Your task to perform on an android device: Go to calendar. Show me events next week Image 0: 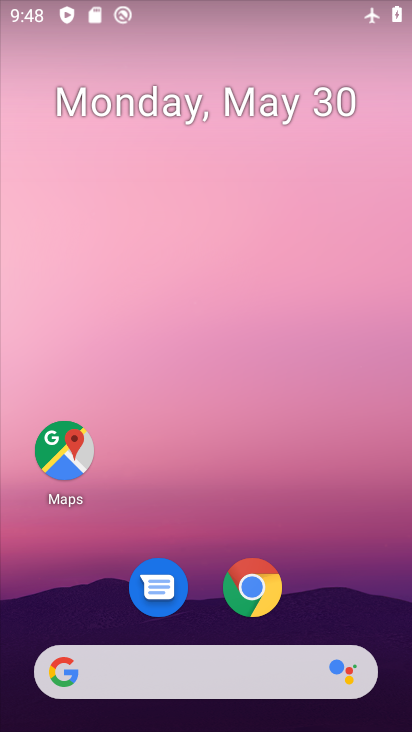
Step 0: drag from (325, 527) to (224, 56)
Your task to perform on an android device: Go to calendar. Show me events next week Image 1: 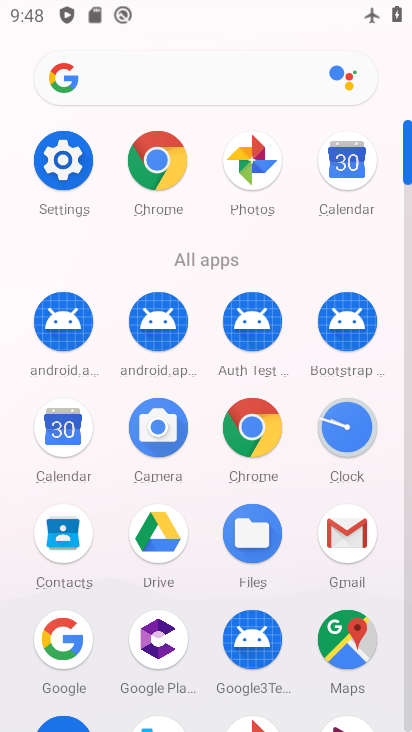
Step 1: drag from (19, 568) to (13, 248)
Your task to perform on an android device: Go to calendar. Show me events next week Image 2: 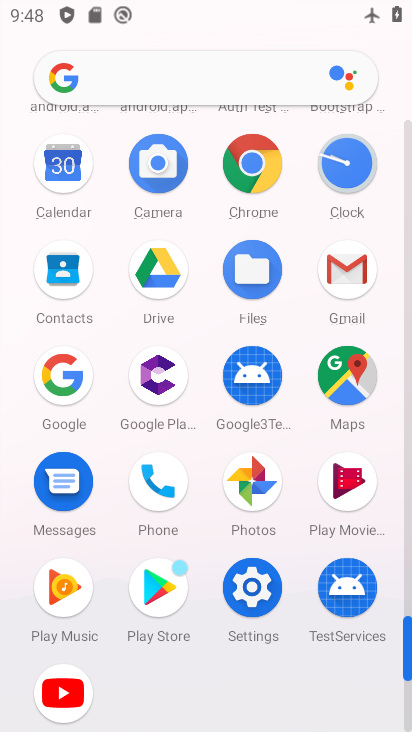
Step 2: click (59, 157)
Your task to perform on an android device: Go to calendar. Show me events next week Image 3: 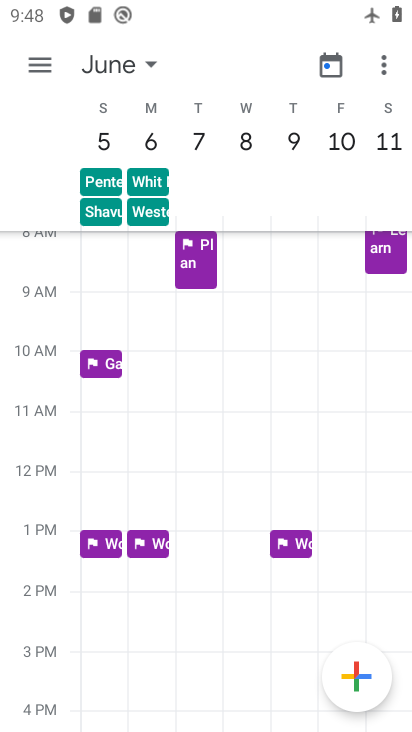
Step 3: click (108, 64)
Your task to perform on an android device: Go to calendar. Show me events next week Image 4: 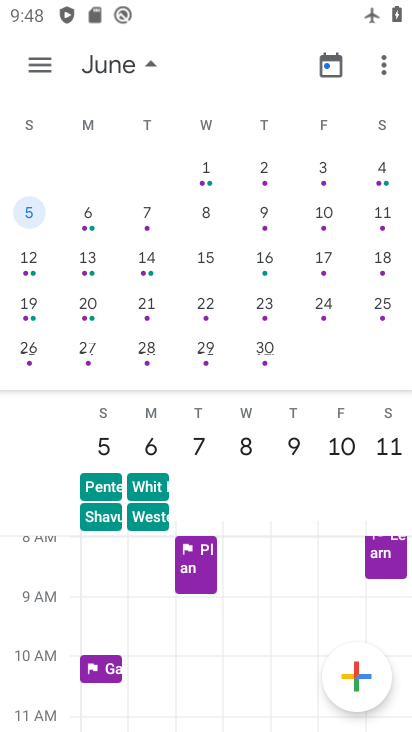
Step 4: click (331, 62)
Your task to perform on an android device: Go to calendar. Show me events next week Image 5: 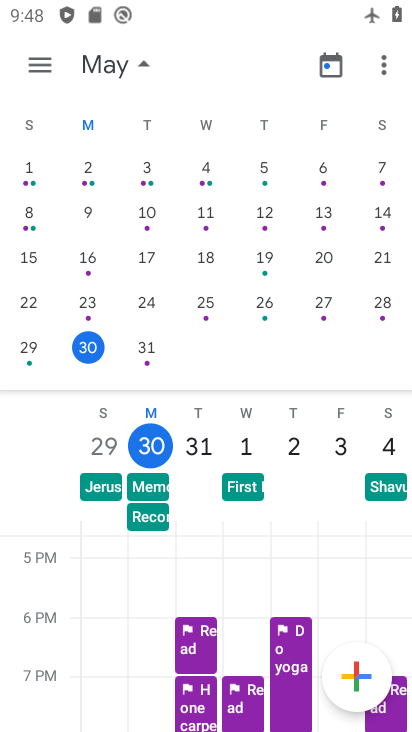
Step 5: click (43, 65)
Your task to perform on an android device: Go to calendar. Show me events next week Image 6: 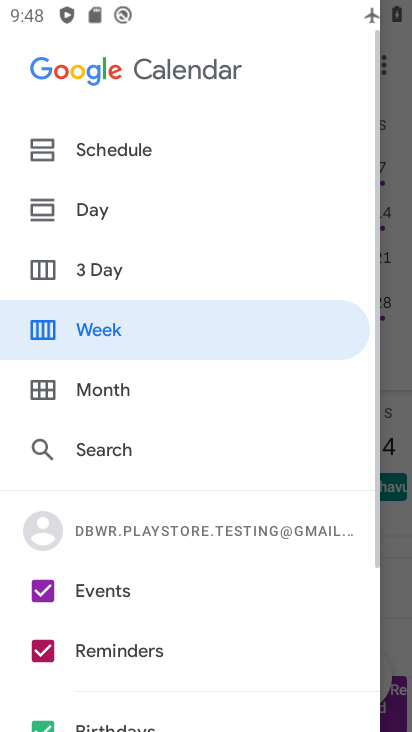
Step 6: click (126, 332)
Your task to perform on an android device: Go to calendar. Show me events next week Image 7: 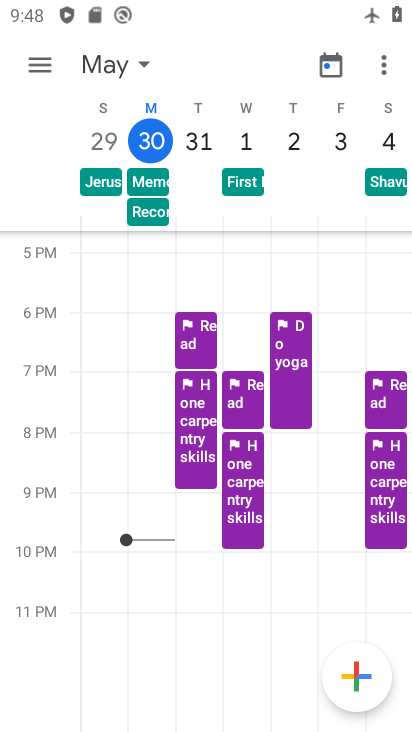
Step 7: task complete